Your task to perform on an android device: move a message to another label in the gmail app Image 0: 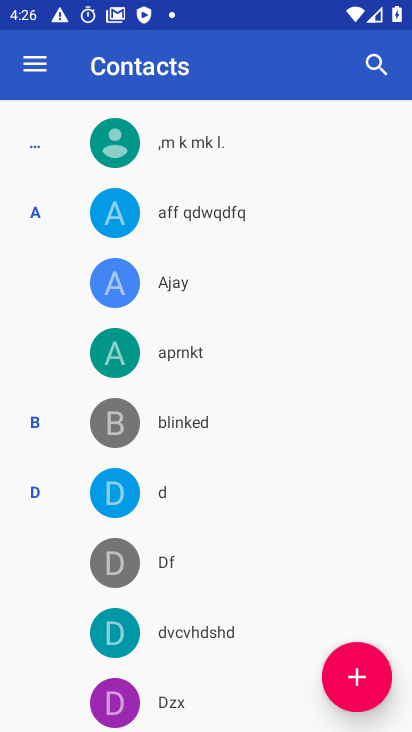
Step 0: press home button
Your task to perform on an android device: move a message to another label in the gmail app Image 1: 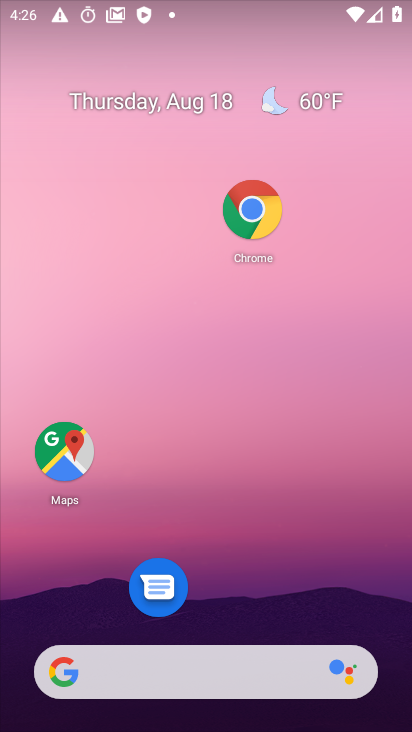
Step 1: drag from (303, 604) to (375, 78)
Your task to perform on an android device: move a message to another label in the gmail app Image 2: 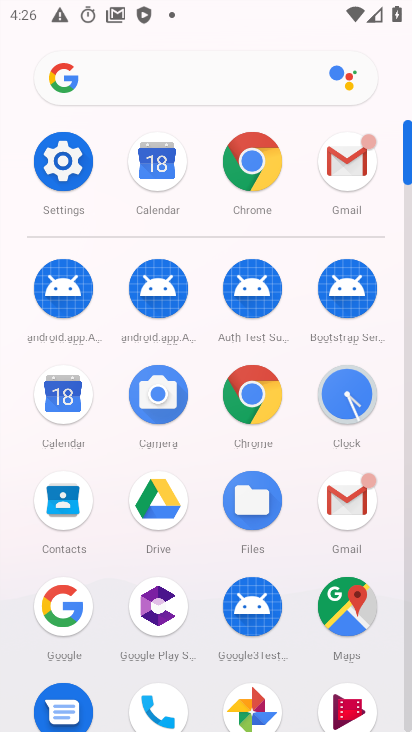
Step 2: click (246, 391)
Your task to perform on an android device: move a message to another label in the gmail app Image 3: 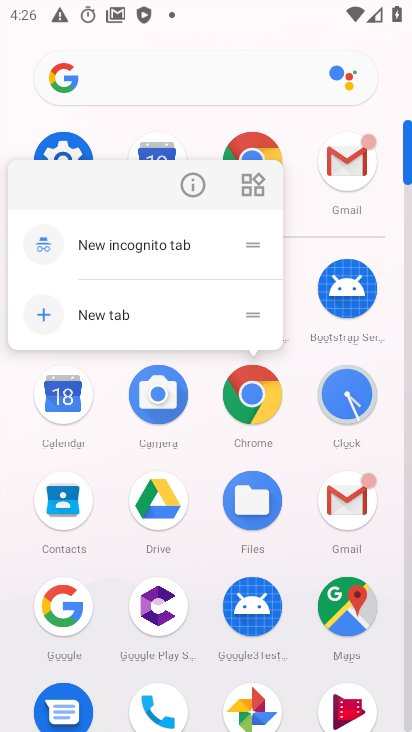
Step 3: click (348, 176)
Your task to perform on an android device: move a message to another label in the gmail app Image 4: 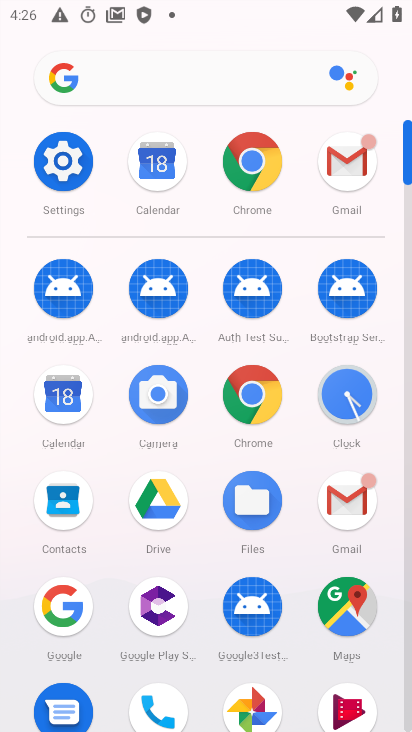
Step 4: click (348, 176)
Your task to perform on an android device: move a message to another label in the gmail app Image 5: 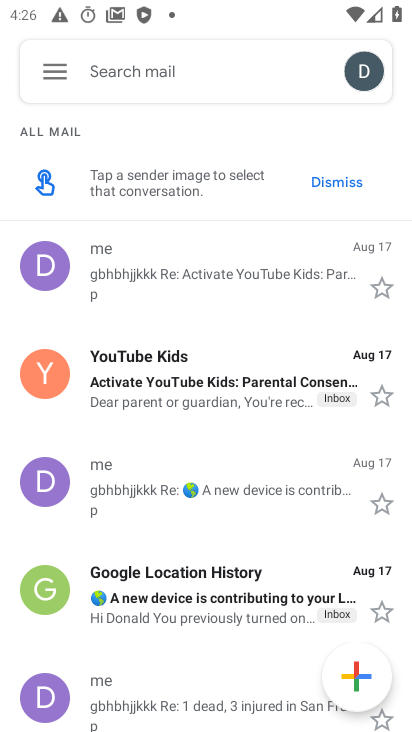
Step 5: click (68, 263)
Your task to perform on an android device: move a message to another label in the gmail app Image 6: 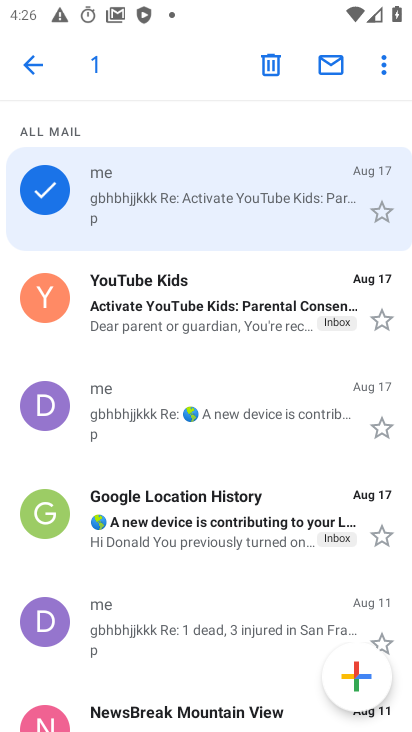
Step 6: click (386, 64)
Your task to perform on an android device: move a message to another label in the gmail app Image 7: 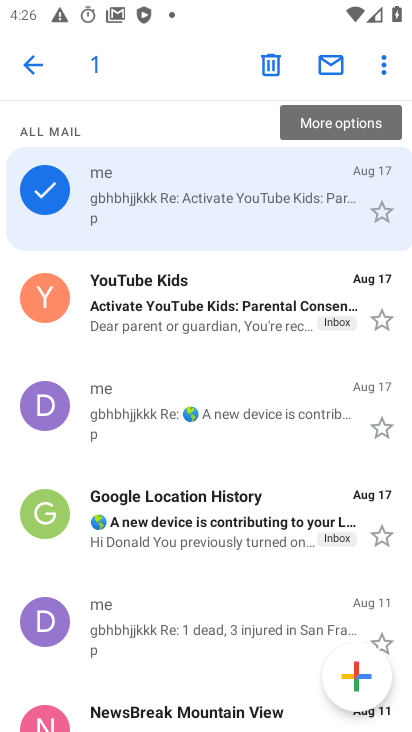
Step 7: click (386, 64)
Your task to perform on an android device: move a message to another label in the gmail app Image 8: 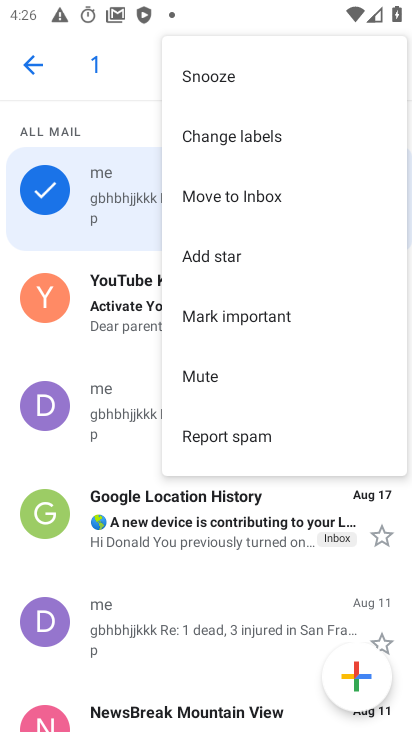
Step 8: click (229, 198)
Your task to perform on an android device: move a message to another label in the gmail app Image 9: 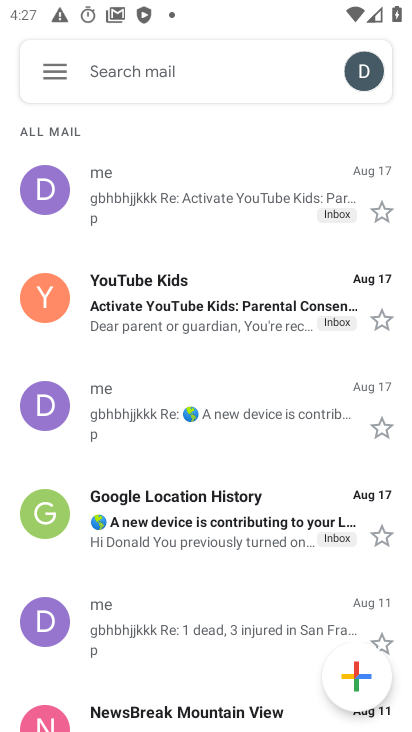
Step 9: task complete